Your task to perform on an android device: What is the news today? Image 0: 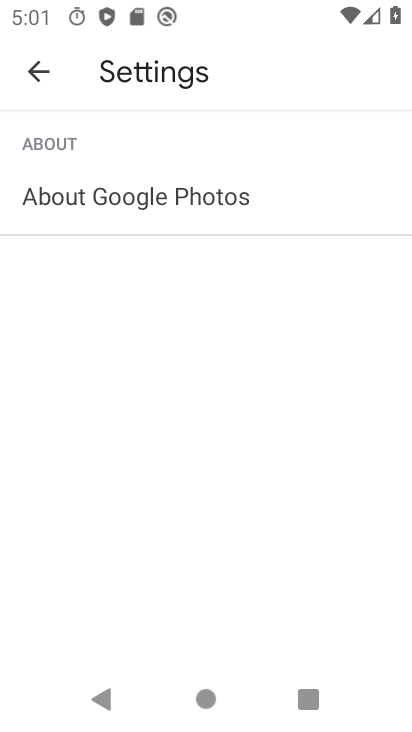
Step 0: click (23, 69)
Your task to perform on an android device: What is the news today? Image 1: 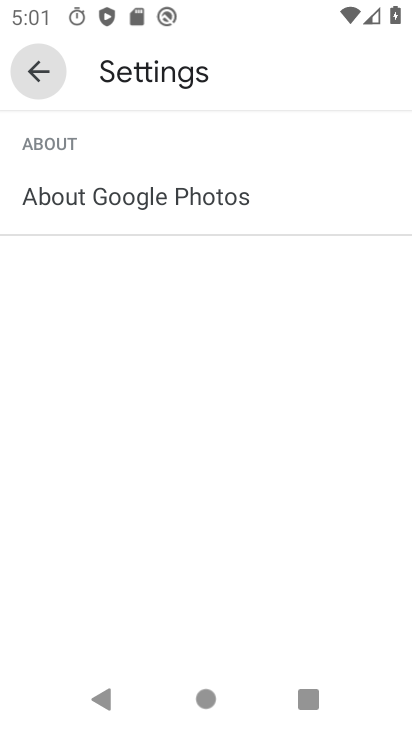
Step 1: click (22, 68)
Your task to perform on an android device: What is the news today? Image 2: 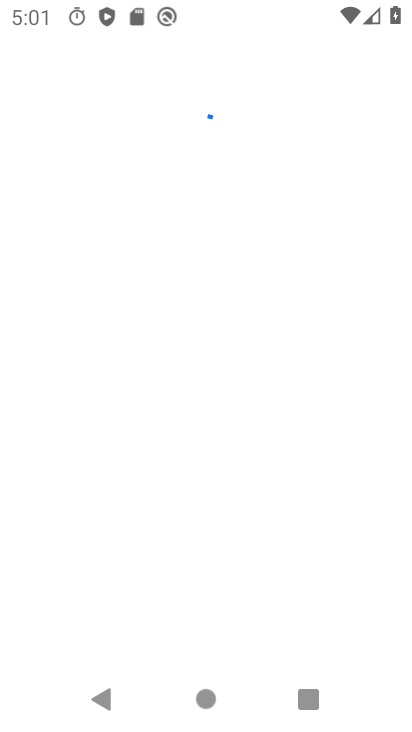
Step 2: click (22, 68)
Your task to perform on an android device: What is the news today? Image 3: 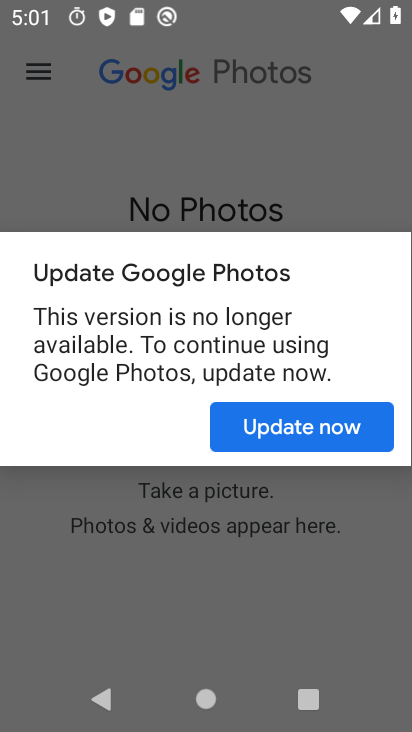
Step 3: press home button
Your task to perform on an android device: What is the news today? Image 4: 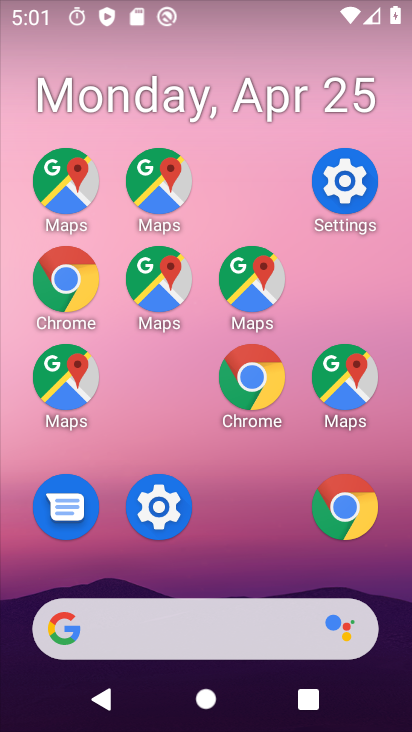
Step 4: drag from (244, 677) to (132, 75)
Your task to perform on an android device: What is the news today? Image 5: 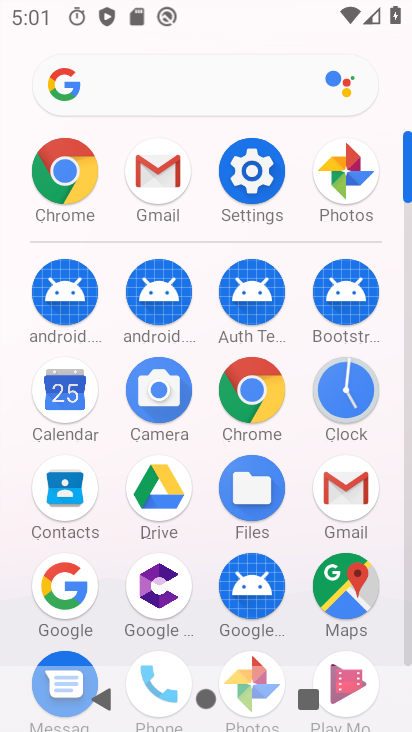
Step 5: press home button
Your task to perform on an android device: What is the news today? Image 6: 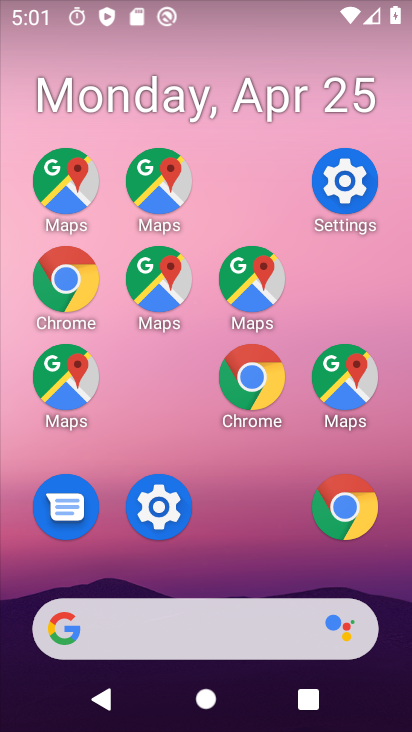
Step 6: drag from (9, 161) to (398, 269)
Your task to perform on an android device: What is the news today? Image 7: 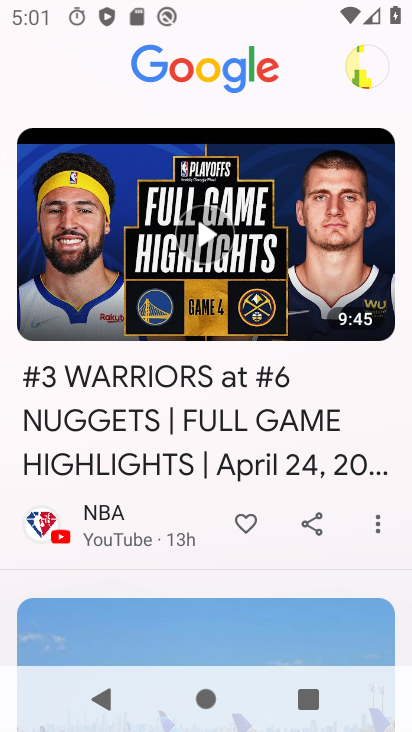
Step 7: drag from (171, 551) to (104, 93)
Your task to perform on an android device: What is the news today? Image 8: 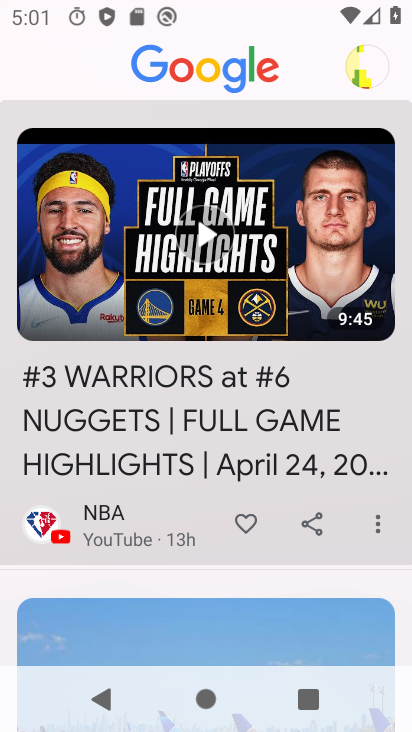
Step 8: drag from (173, 340) to (108, 49)
Your task to perform on an android device: What is the news today? Image 9: 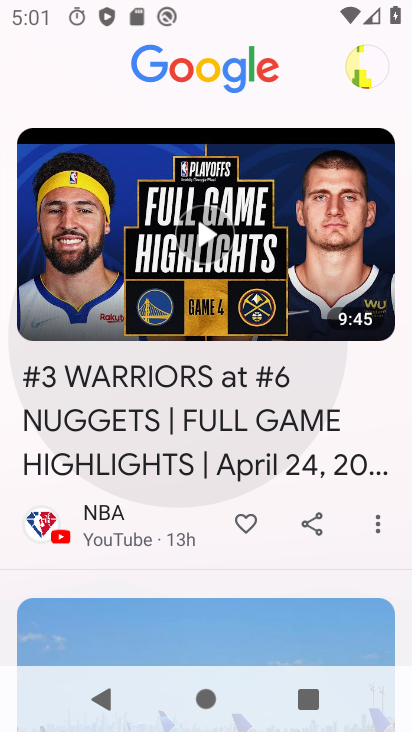
Step 9: drag from (122, 502) to (54, 155)
Your task to perform on an android device: What is the news today? Image 10: 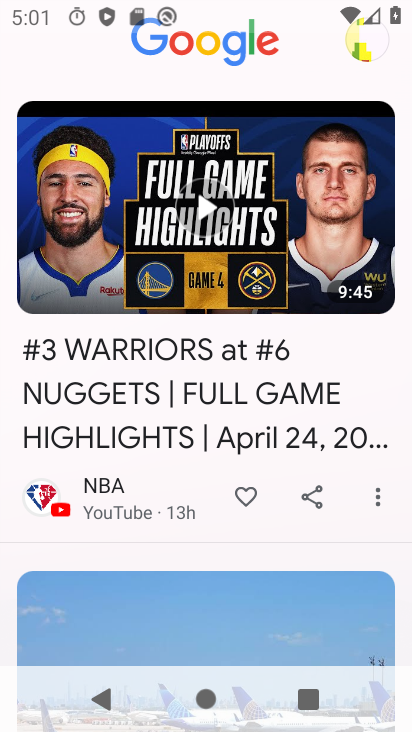
Step 10: click (191, 14)
Your task to perform on an android device: What is the news today? Image 11: 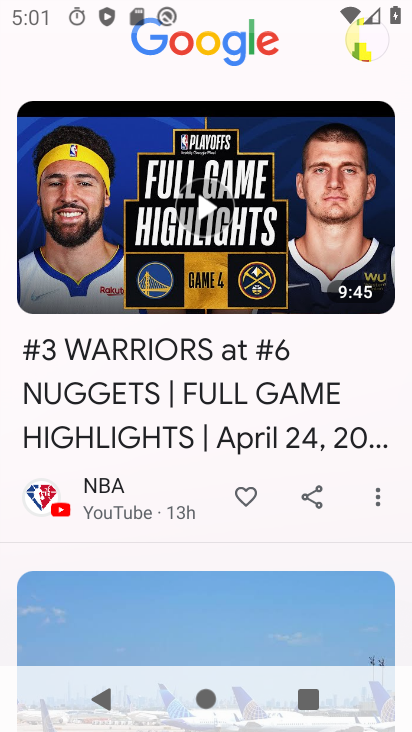
Step 11: task complete